Your task to perform on an android device: turn on notifications settings in the gmail app Image 0: 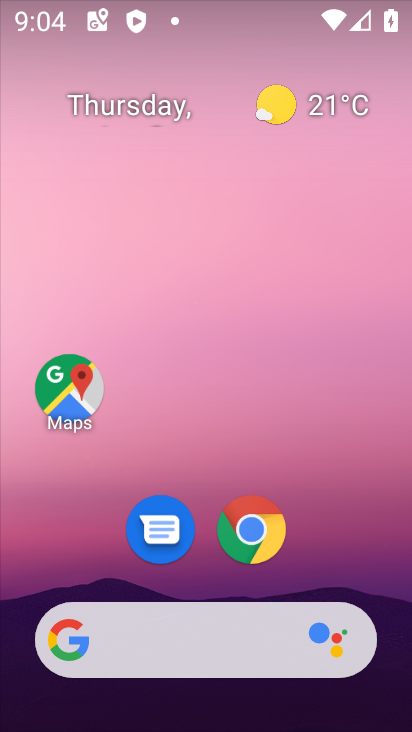
Step 0: drag from (250, 705) to (256, 34)
Your task to perform on an android device: turn on notifications settings in the gmail app Image 1: 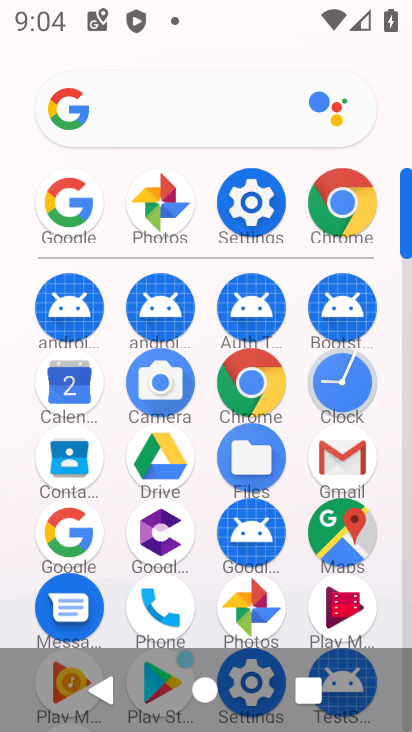
Step 1: click (340, 460)
Your task to perform on an android device: turn on notifications settings in the gmail app Image 2: 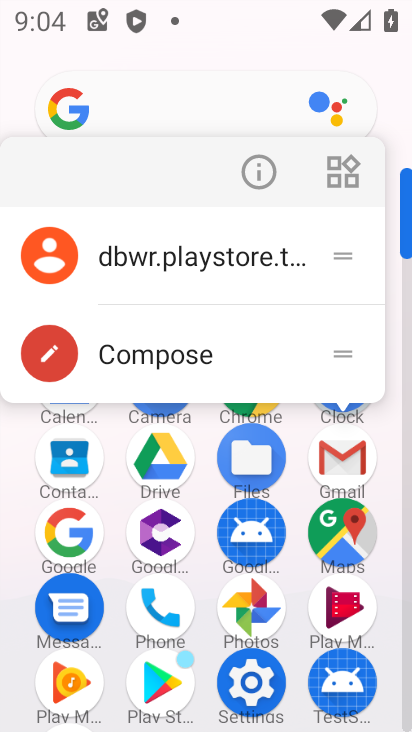
Step 2: click (264, 162)
Your task to perform on an android device: turn on notifications settings in the gmail app Image 3: 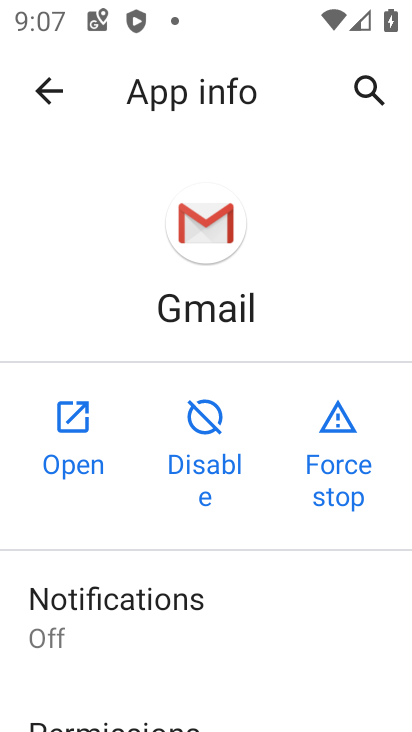
Step 3: click (126, 610)
Your task to perform on an android device: turn on notifications settings in the gmail app Image 4: 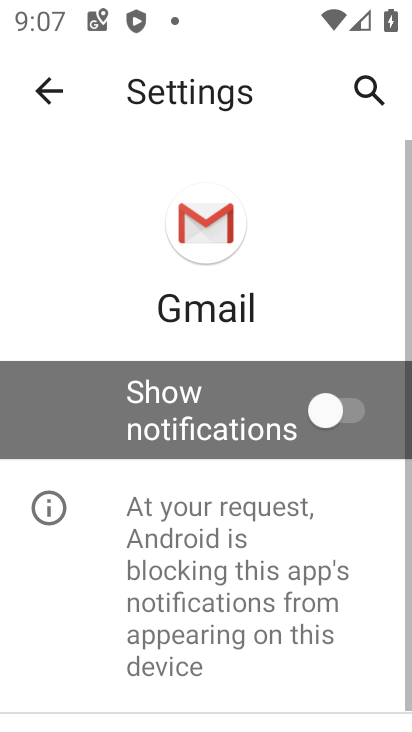
Step 4: click (329, 423)
Your task to perform on an android device: turn on notifications settings in the gmail app Image 5: 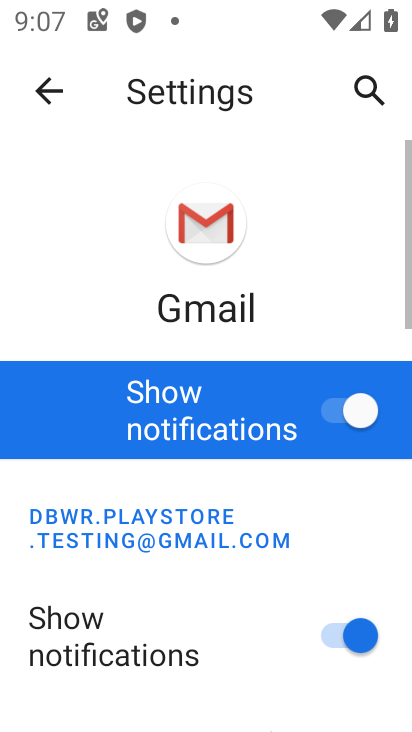
Step 5: task complete